Your task to perform on an android device: change the clock display to digital Image 0: 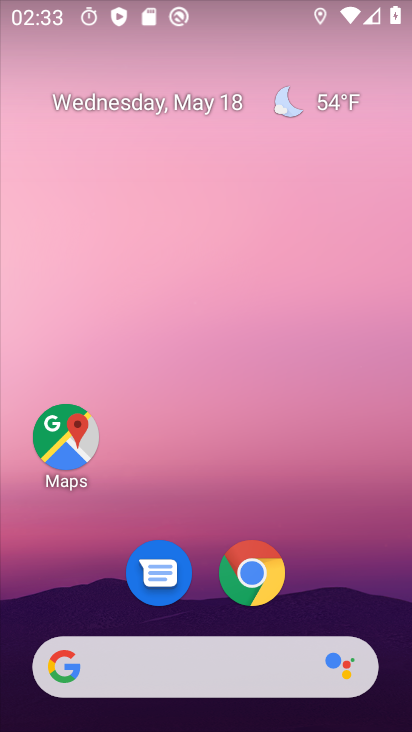
Step 0: drag from (192, 606) to (230, 267)
Your task to perform on an android device: change the clock display to digital Image 1: 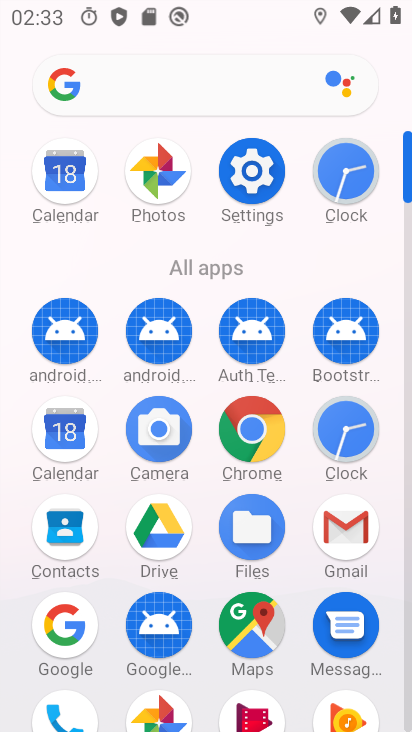
Step 1: click (338, 435)
Your task to perform on an android device: change the clock display to digital Image 2: 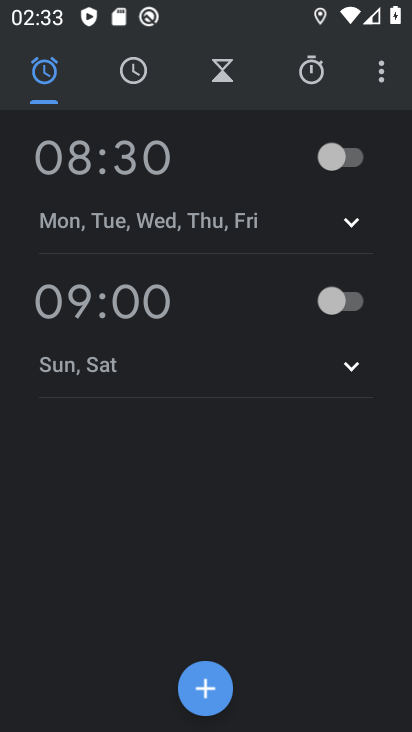
Step 2: click (380, 75)
Your task to perform on an android device: change the clock display to digital Image 3: 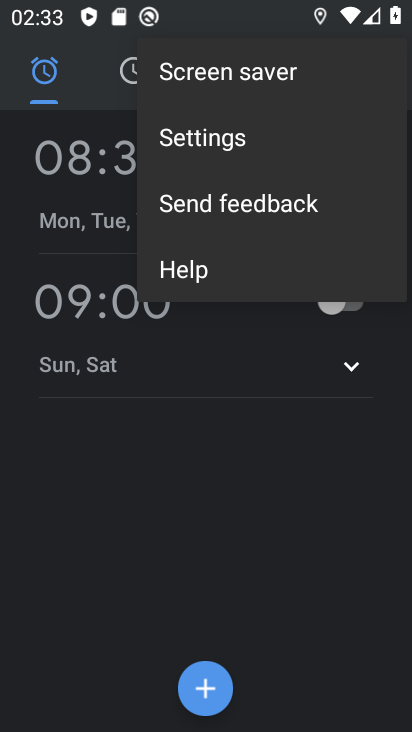
Step 3: click (257, 141)
Your task to perform on an android device: change the clock display to digital Image 4: 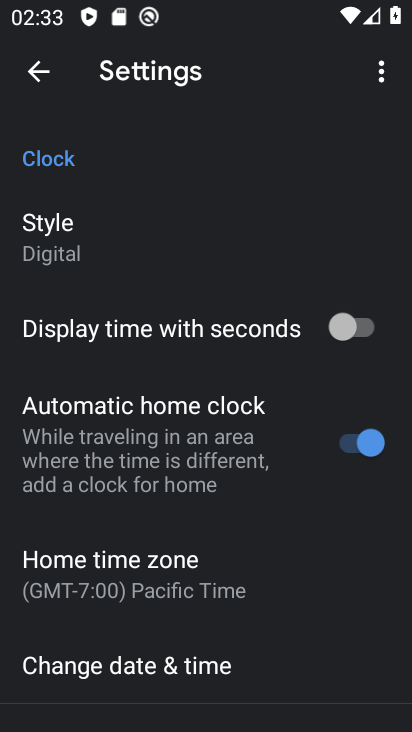
Step 4: drag from (181, 637) to (186, 405)
Your task to perform on an android device: change the clock display to digital Image 5: 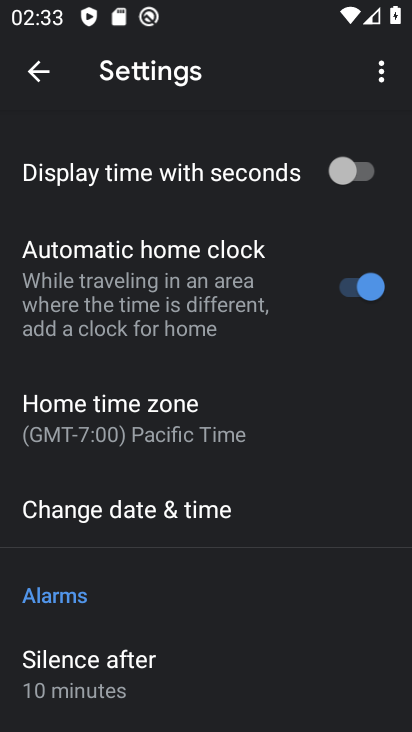
Step 5: drag from (169, 193) to (174, 492)
Your task to perform on an android device: change the clock display to digital Image 6: 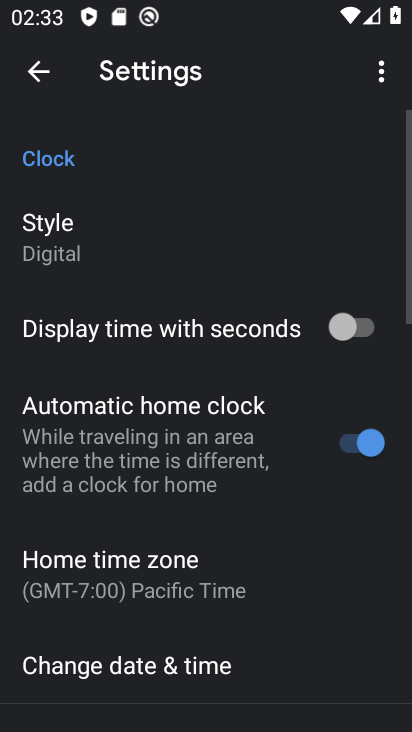
Step 6: click (127, 246)
Your task to perform on an android device: change the clock display to digital Image 7: 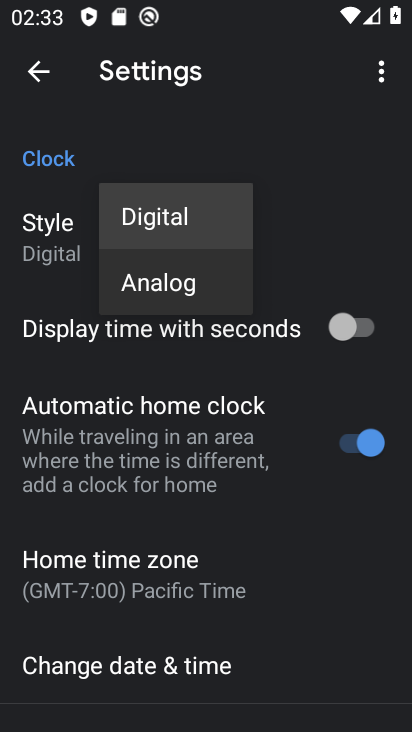
Step 7: task complete